Your task to perform on an android device: open the mobile data screen to see how much data has been used Image 0: 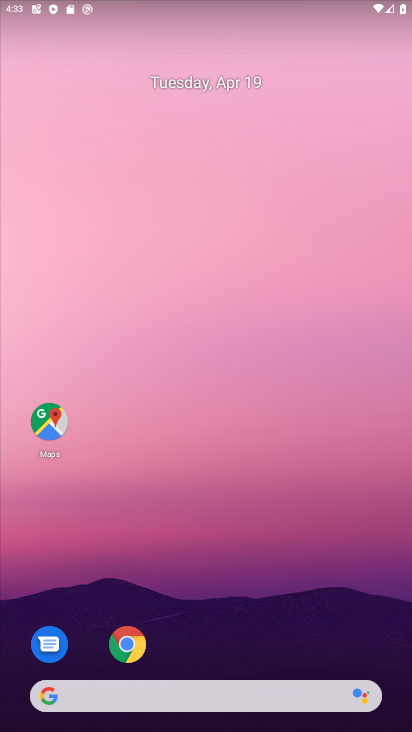
Step 0: drag from (300, 531) to (300, 191)
Your task to perform on an android device: open the mobile data screen to see how much data has been used Image 1: 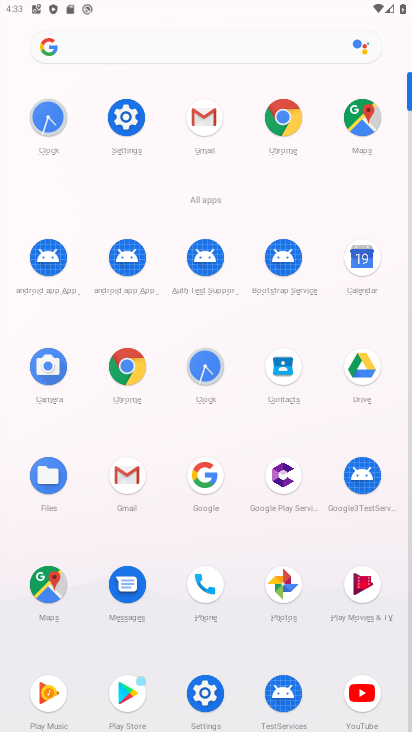
Step 1: click (199, 694)
Your task to perform on an android device: open the mobile data screen to see how much data has been used Image 2: 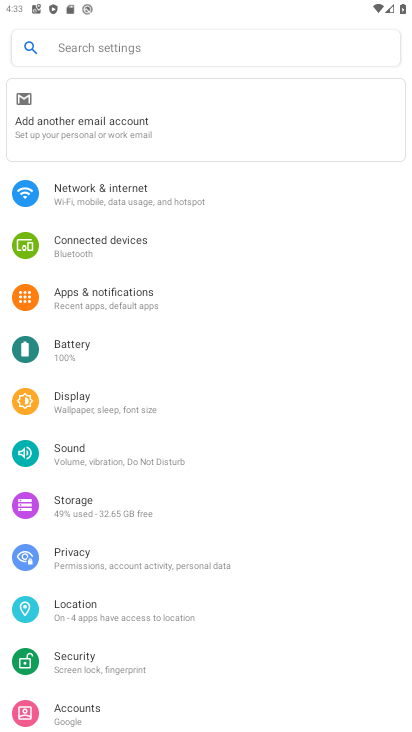
Step 2: click (143, 203)
Your task to perform on an android device: open the mobile data screen to see how much data has been used Image 3: 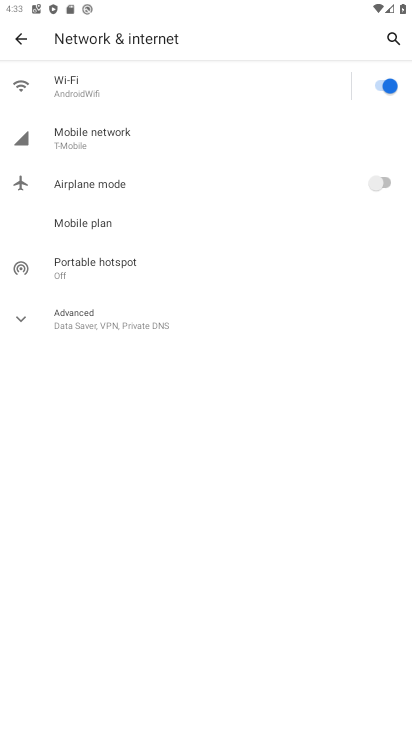
Step 3: click (122, 138)
Your task to perform on an android device: open the mobile data screen to see how much data has been used Image 4: 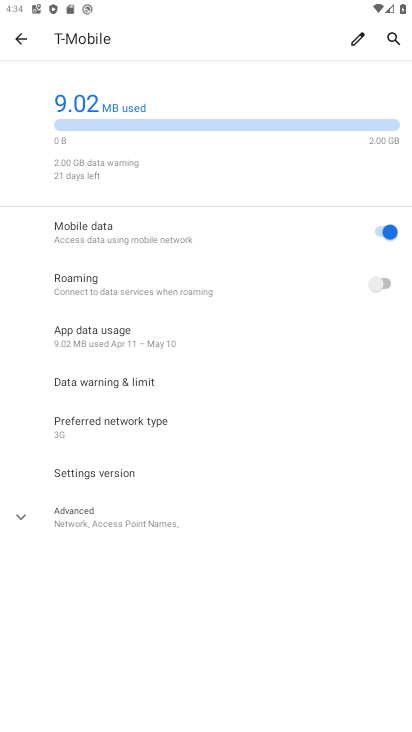
Step 4: click (119, 341)
Your task to perform on an android device: open the mobile data screen to see how much data has been used Image 5: 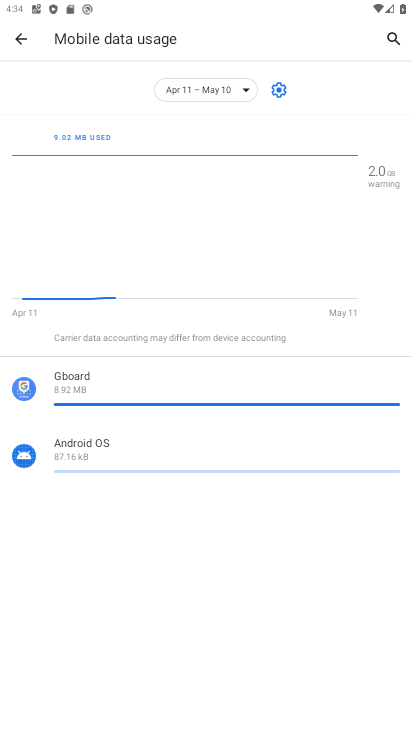
Step 5: task complete